Your task to perform on an android device: toggle sleep mode Image 0: 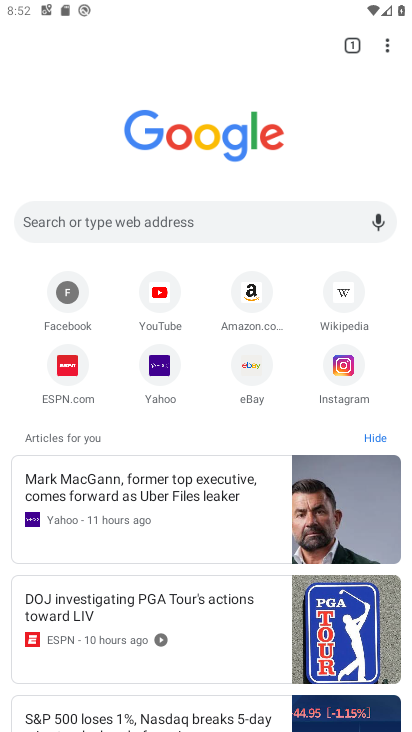
Step 0: press home button
Your task to perform on an android device: toggle sleep mode Image 1: 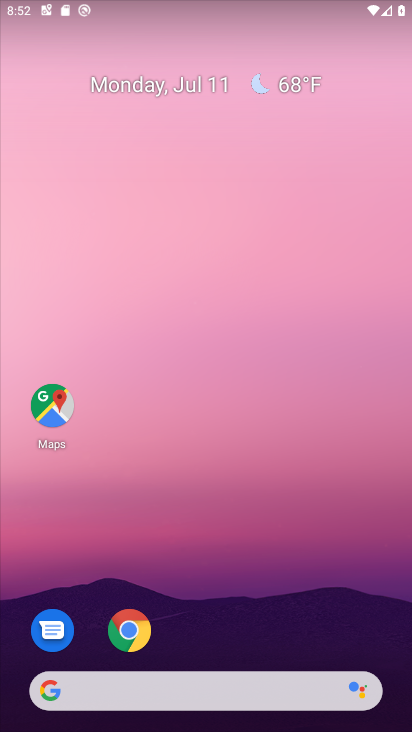
Step 1: drag from (223, 634) to (242, 16)
Your task to perform on an android device: toggle sleep mode Image 2: 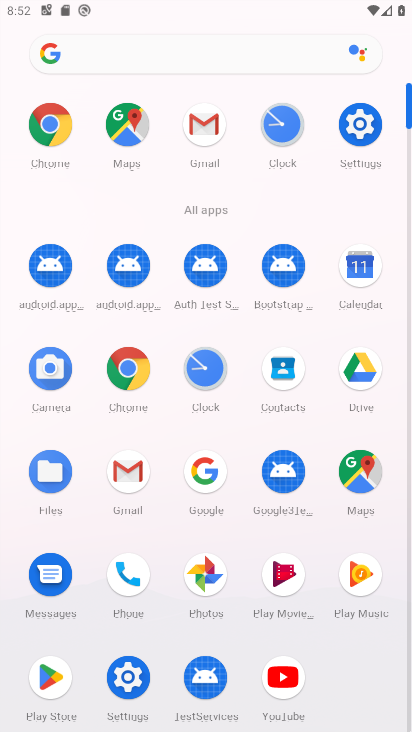
Step 2: click (124, 679)
Your task to perform on an android device: toggle sleep mode Image 3: 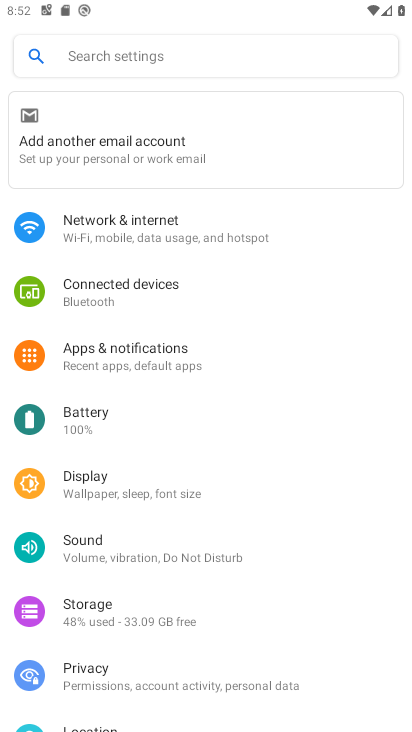
Step 3: click (193, 55)
Your task to perform on an android device: toggle sleep mode Image 4: 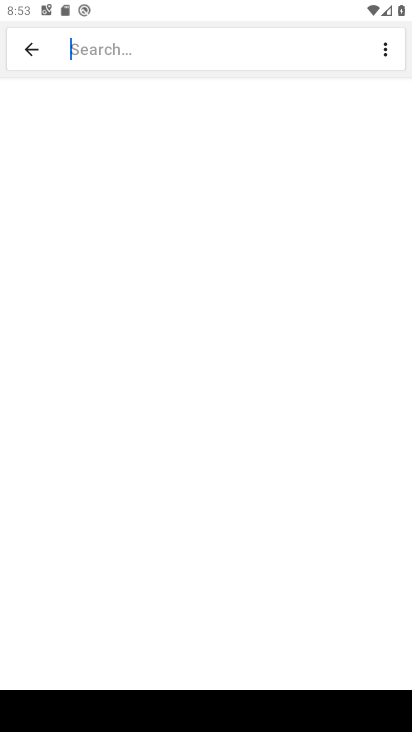
Step 4: type "sleep mode"
Your task to perform on an android device: toggle sleep mode Image 5: 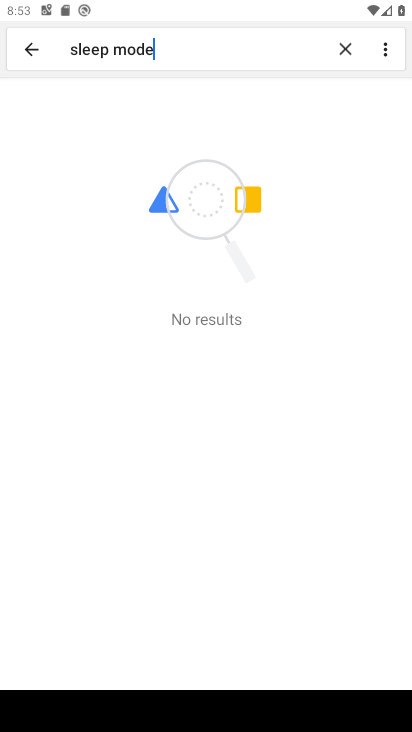
Step 5: task complete